Your task to perform on an android device: Go to calendar. Show me events next week Image 0: 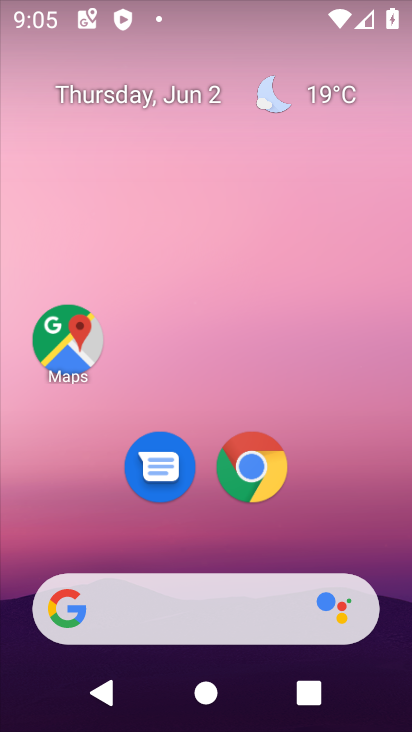
Step 0: drag from (185, 542) to (160, 95)
Your task to perform on an android device: Go to calendar. Show me events next week Image 1: 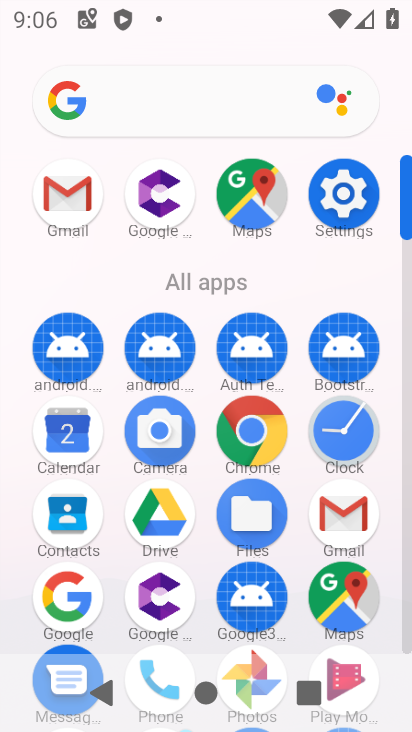
Step 1: click (55, 461)
Your task to perform on an android device: Go to calendar. Show me events next week Image 2: 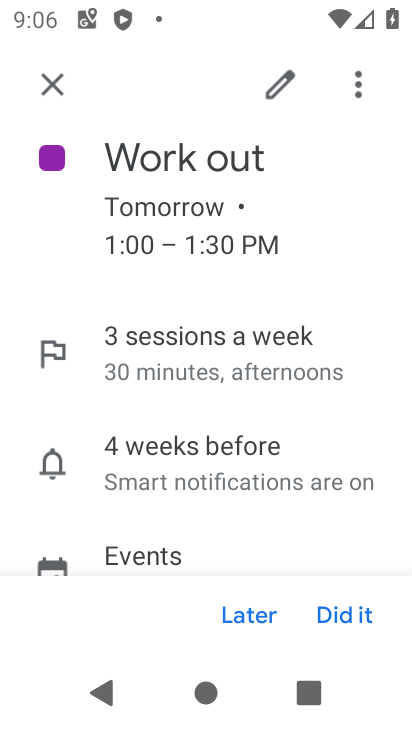
Step 2: click (53, 86)
Your task to perform on an android device: Go to calendar. Show me events next week Image 3: 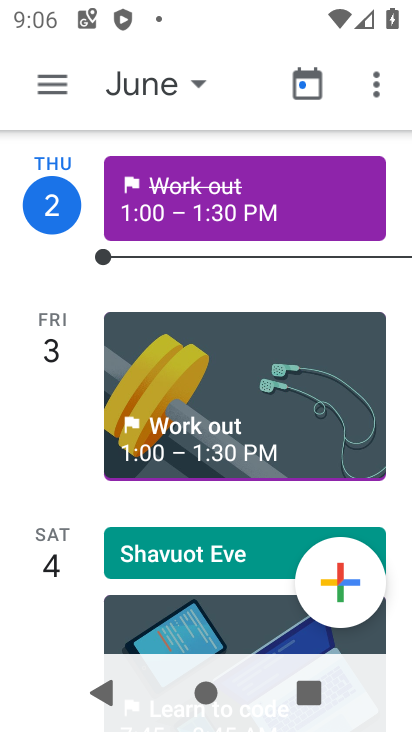
Step 3: click (44, 74)
Your task to perform on an android device: Go to calendar. Show me events next week Image 4: 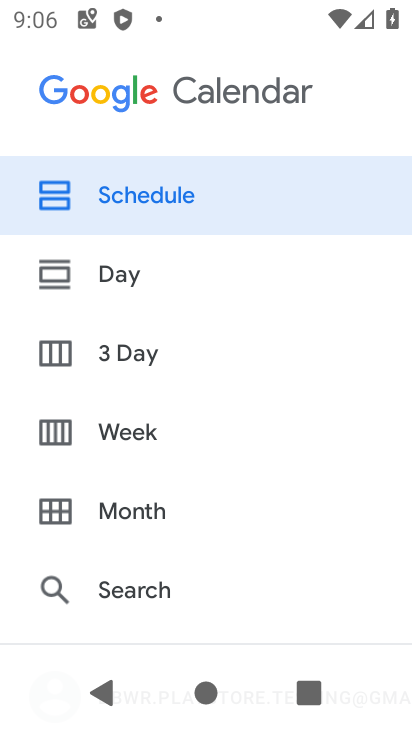
Step 4: click (149, 431)
Your task to perform on an android device: Go to calendar. Show me events next week Image 5: 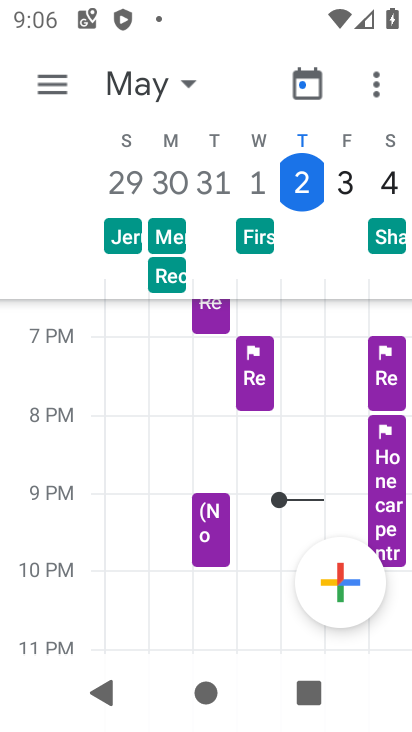
Step 5: click (135, 88)
Your task to perform on an android device: Go to calendar. Show me events next week Image 6: 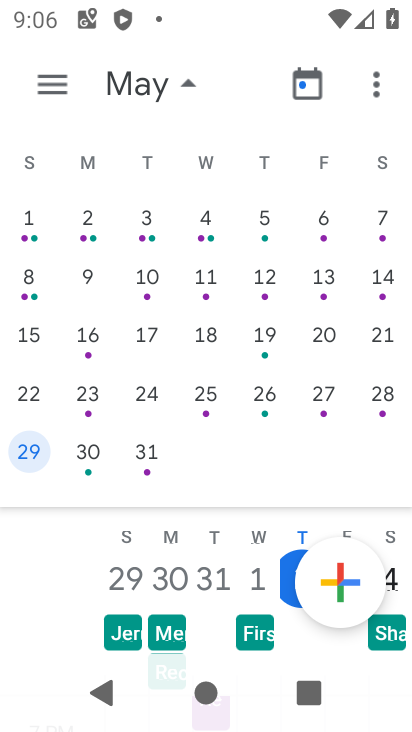
Step 6: drag from (324, 288) to (15, 316)
Your task to perform on an android device: Go to calendar. Show me events next week Image 7: 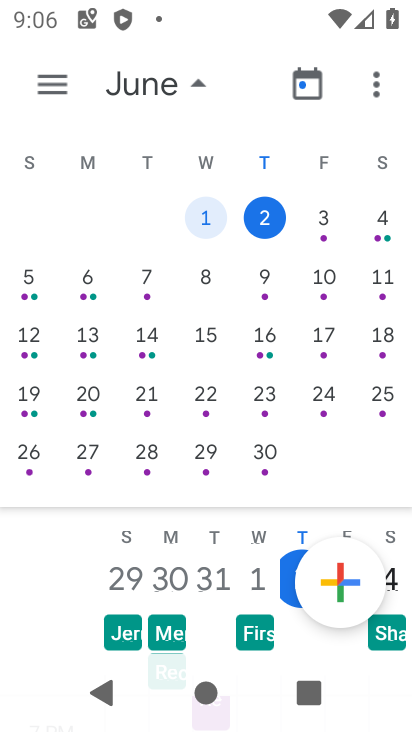
Step 7: click (26, 289)
Your task to perform on an android device: Go to calendar. Show me events next week Image 8: 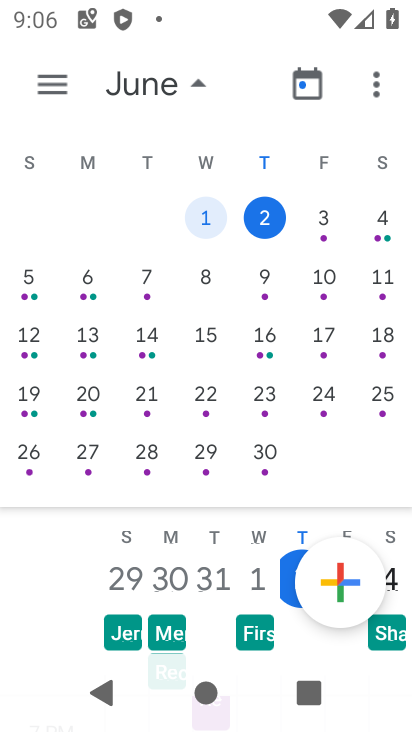
Step 8: click (26, 289)
Your task to perform on an android device: Go to calendar. Show me events next week Image 9: 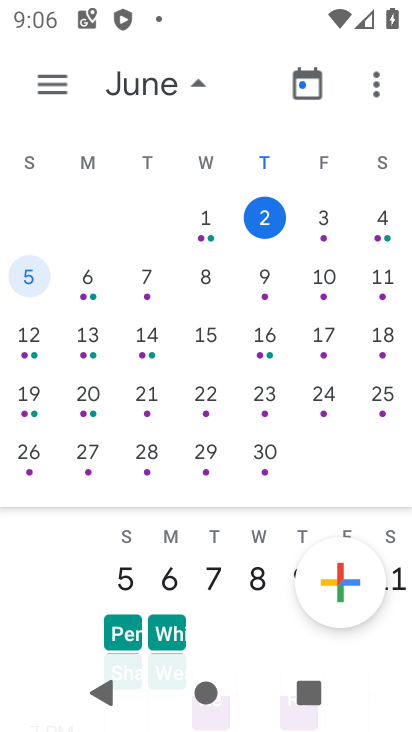
Step 9: task complete